Your task to perform on an android device: change notifications settings Image 0: 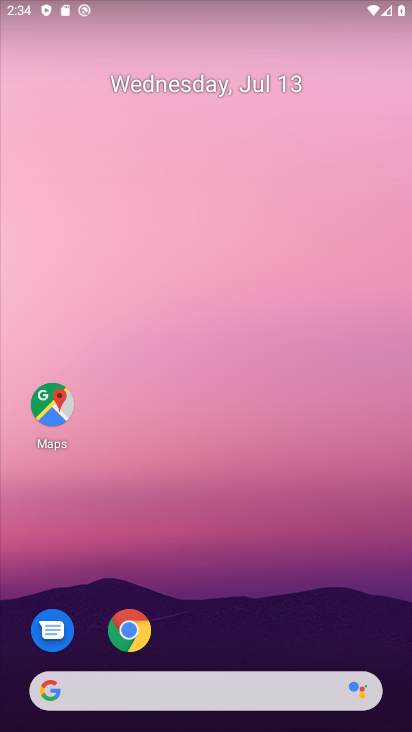
Step 0: drag from (318, 611) to (253, 75)
Your task to perform on an android device: change notifications settings Image 1: 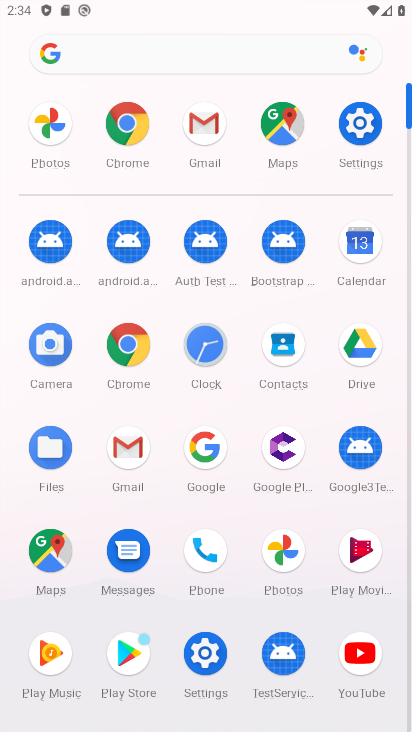
Step 1: click (363, 130)
Your task to perform on an android device: change notifications settings Image 2: 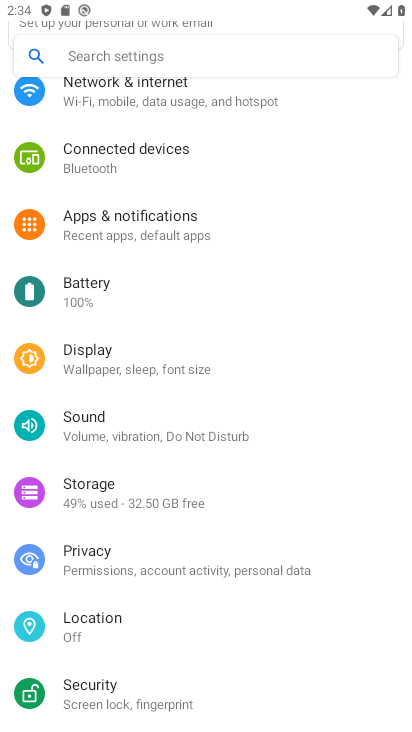
Step 2: click (215, 223)
Your task to perform on an android device: change notifications settings Image 3: 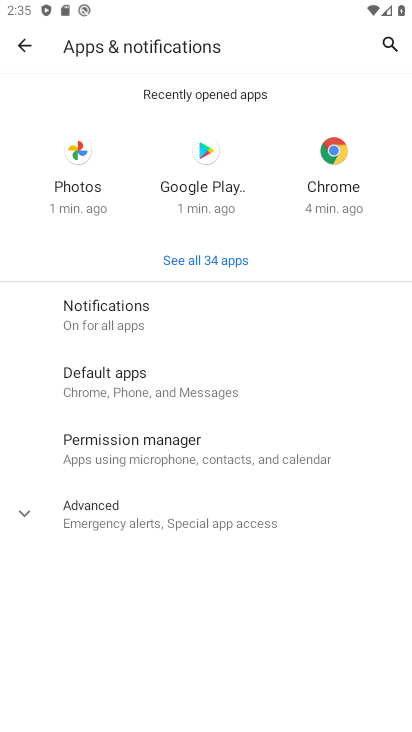
Step 3: click (199, 327)
Your task to perform on an android device: change notifications settings Image 4: 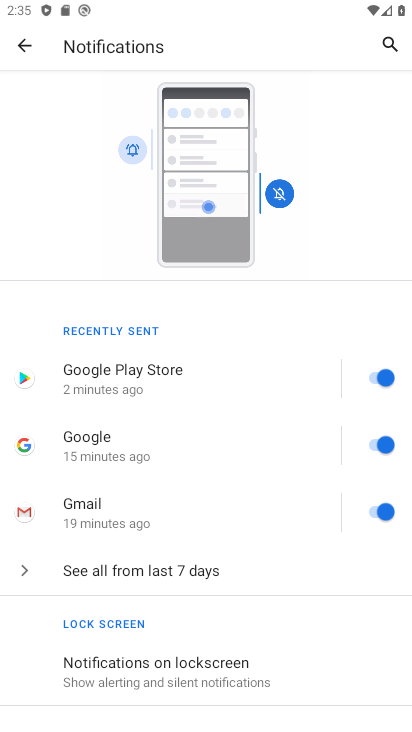
Step 4: drag from (252, 639) to (187, 164)
Your task to perform on an android device: change notifications settings Image 5: 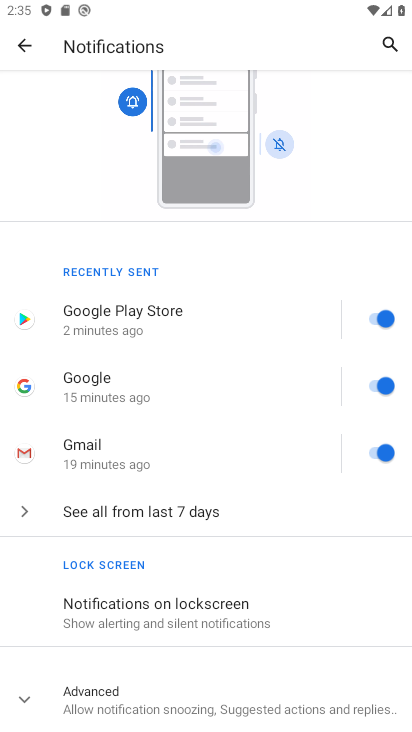
Step 5: click (244, 690)
Your task to perform on an android device: change notifications settings Image 6: 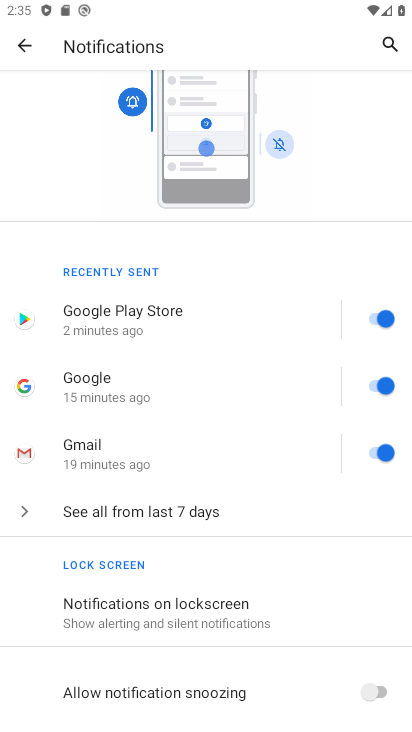
Step 6: drag from (272, 554) to (212, 196)
Your task to perform on an android device: change notifications settings Image 7: 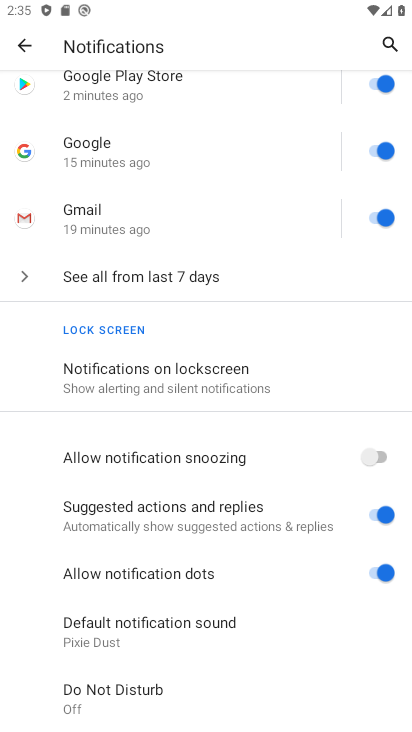
Step 7: click (377, 461)
Your task to perform on an android device: change notifications settings Image 8: 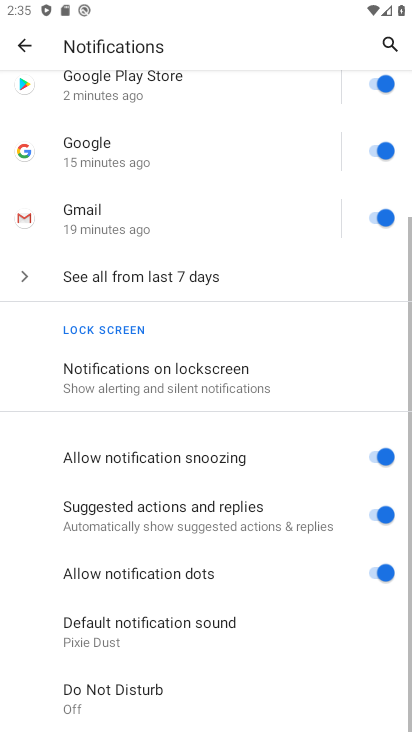
Step 8: click (377, 515)
Your task to perform on an android device: change notifications settings Image 9: 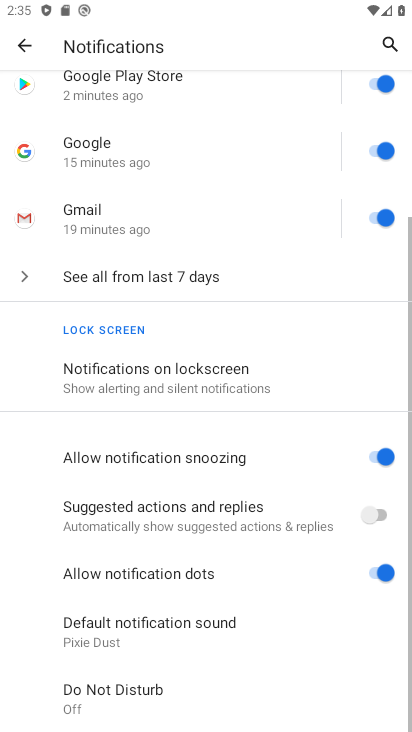
Step 9: click (382, 582)
Your task to perform on an android device: change notifications settings Image 10: 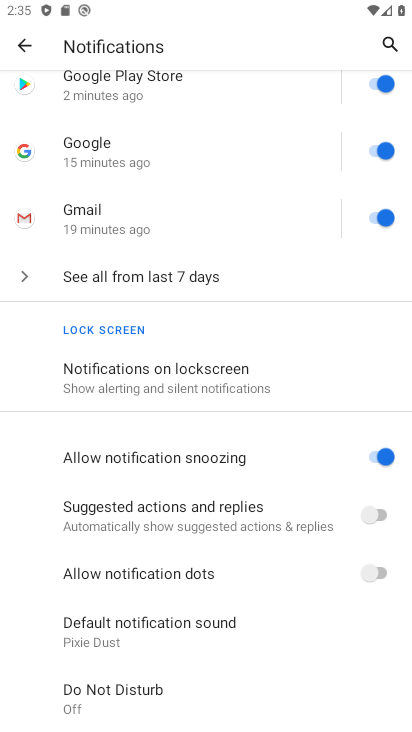
Step 10: task complete